Your task to perform on an android device: turn off priority inbox in the gmail app Image 0: 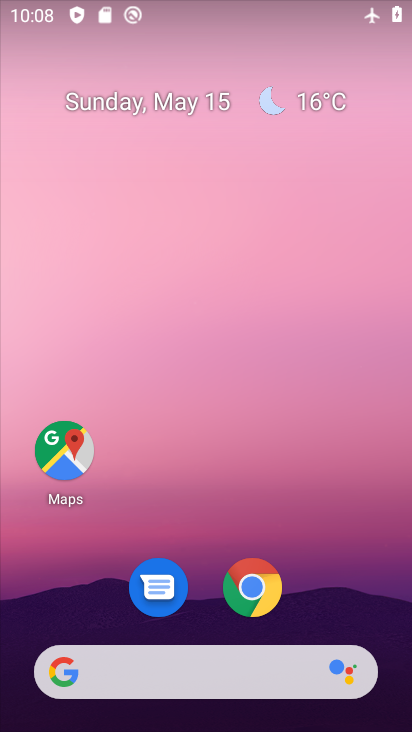
Step 0: drag from (335, 562) to (262, 28)
Your task to perform on an android device: turn off priority inbox in the gmail app Image 1: 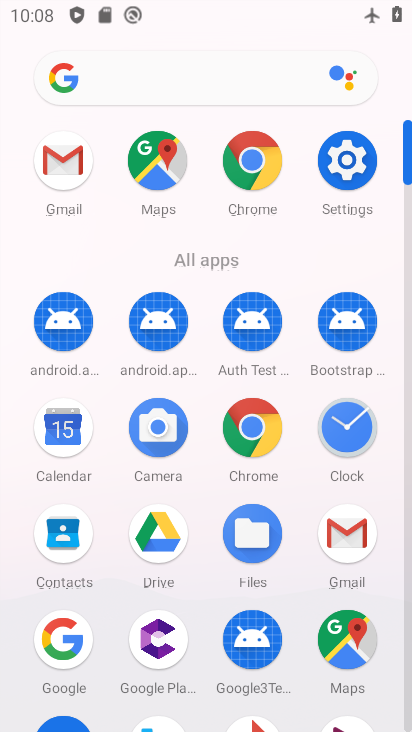
Step 1: drag from (24, 611) to (10, 301)
Your task to perform on an android device: turn off priority inbox in the gmail app Image 2: 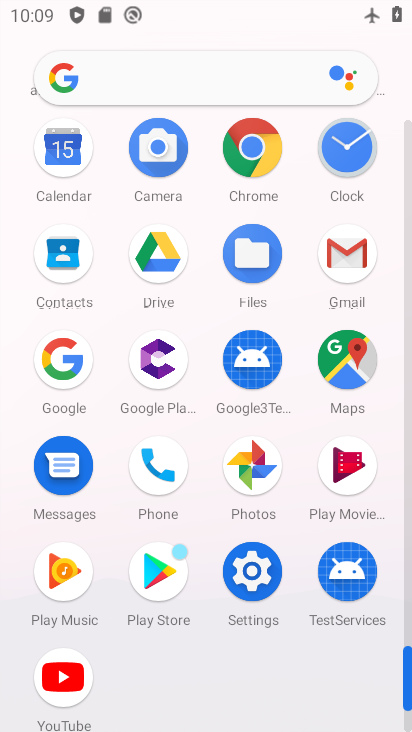
Step 2: click (346, 250)
Your task to perform on an android device: turn off priority inbox in the gmail app Image 3: 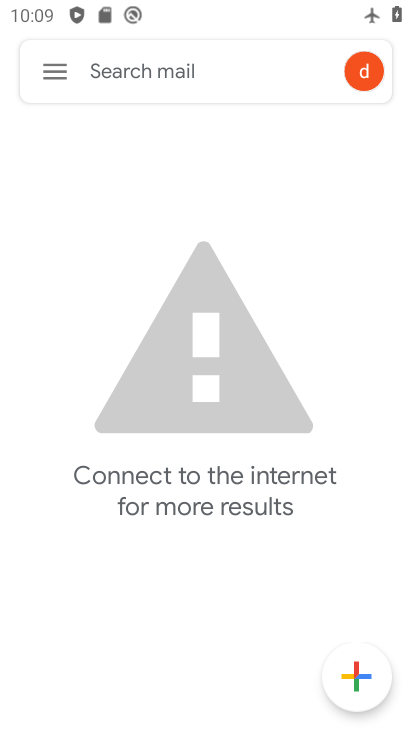
Step 3: click (54, 63)
Your task to perform on an android device: turn off priority inbox in the gmail app Image 4: 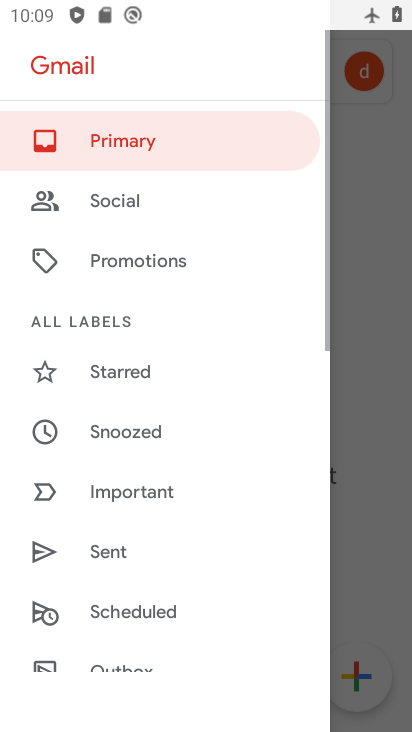
Step 4: drag from (215, 594) to (226, 125)
Your task to perform on an android device: turn off priority inbox in the gmail app Image 5: 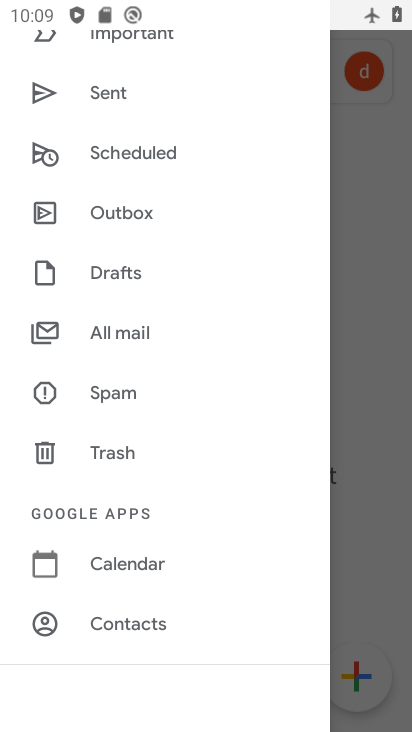
Step 5: drag from (178, 600) to (187, 204)
Your task to perform on an android device: turn off priority inbox in the gmail app Image 6: 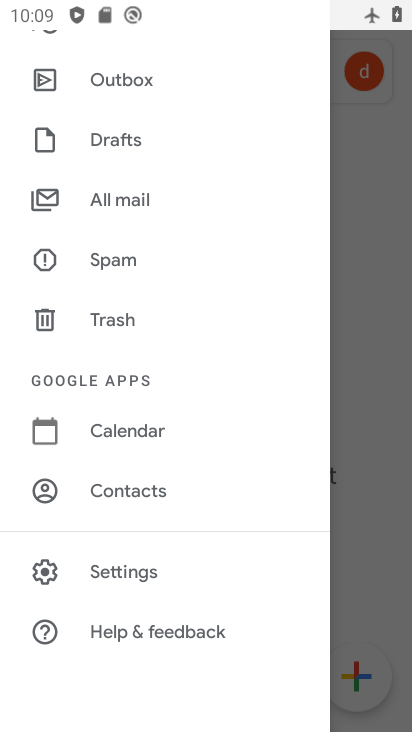
Step 6: click (124, 572)
Your task to perform on an android device: turn off priority inbox in the gmail app Image 7: 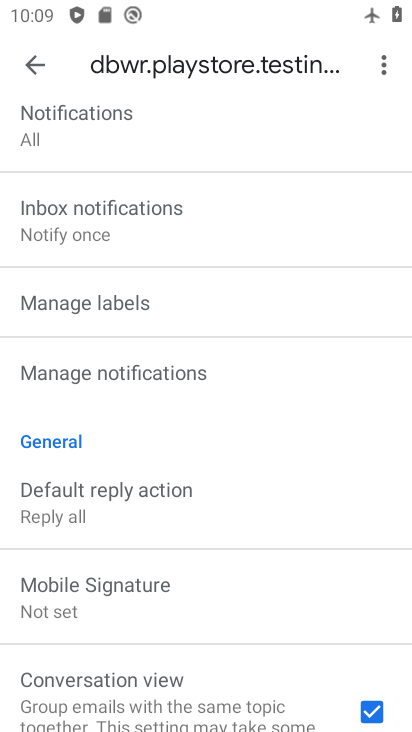
Step 7: drag from (243, 207) to (247, 643)
Your task to perform on an android device: turn off priority inbox in the gmail app Image 8: 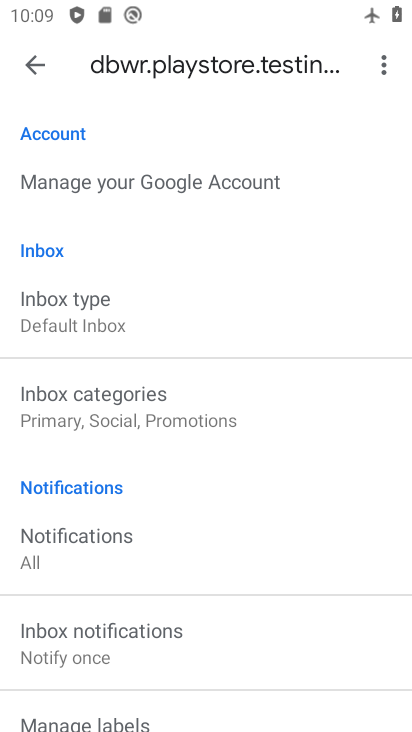
Step 8: click (136, 318)
Your task to perform on an android device: turn off priority inbox in the gmail app Image 9: 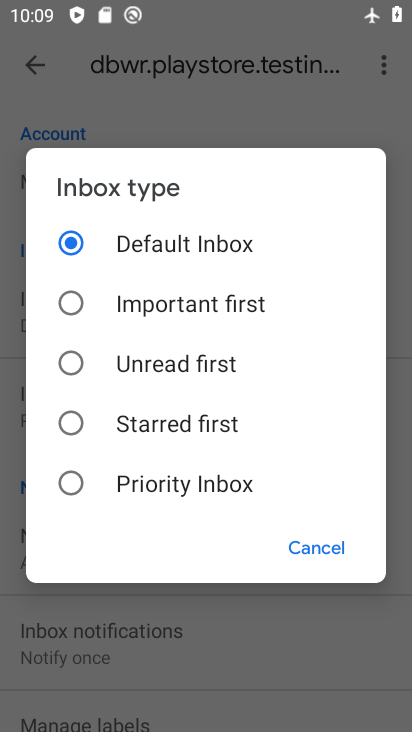
Step 9: click (132, 480)
Your task to perform on an android device: turn off priority inbox in the gmail app Image 10: 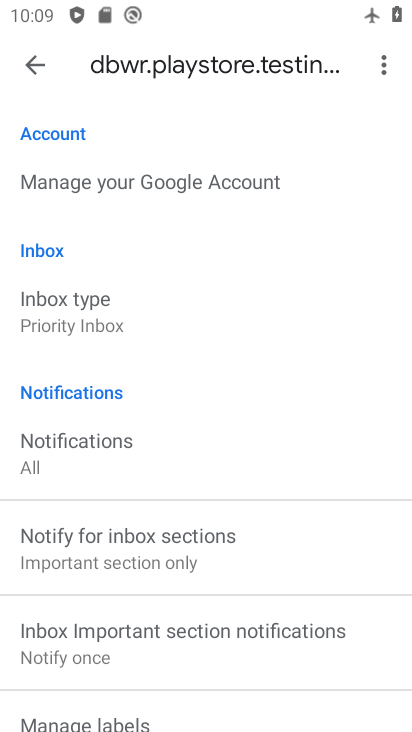
Step 10: click (126, 303)
Your task to perform on an android device: turn off priority inbox in the gmail app Image 11: 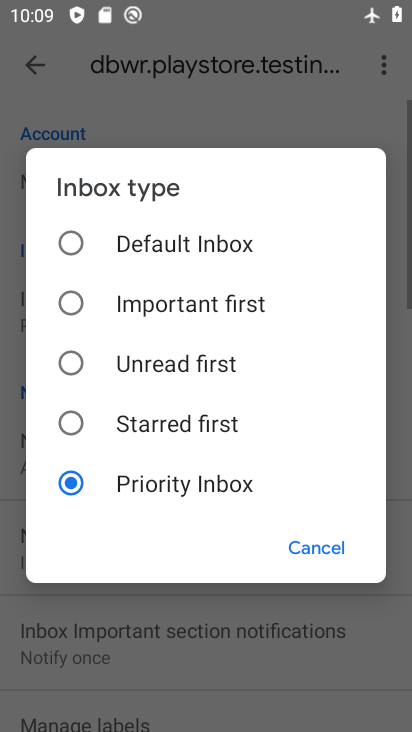
Step 11: click (152, 241)
Your task to perform on an android device: turn off priority inbox in the gmail app Image 12: 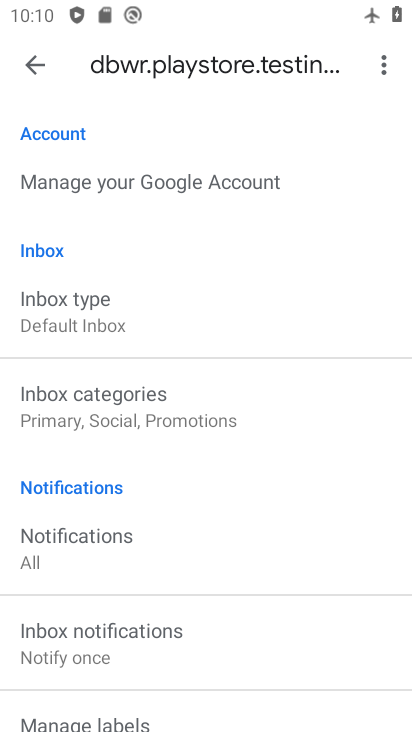
Step 12: task complete